Your task to perform on an android device: Is it going to rain tomorrow? Image 0: 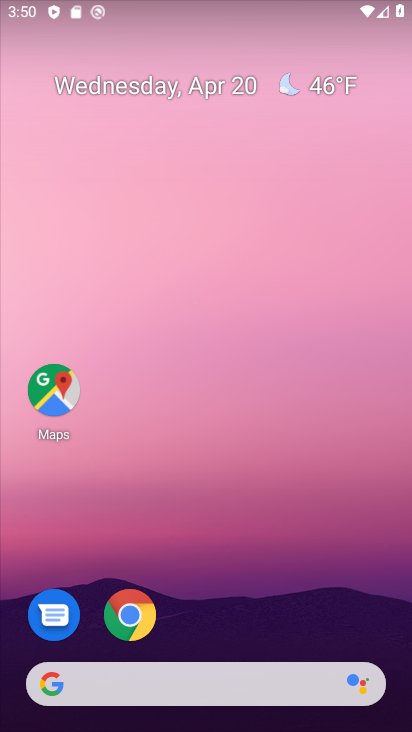
Step 0: click (167, 687)
Your task to perform on an android device: Is it going to rain tomorrow? Image 1: 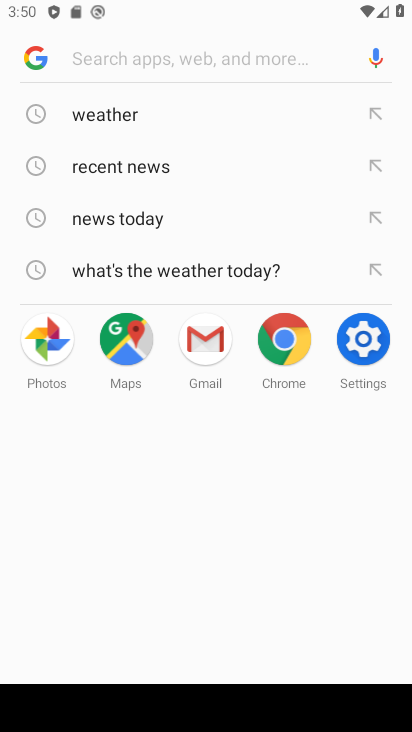
Step 1: click (132, 118)
Your task to perform on an android device: Is it going to rain tomorrow? Image 2: 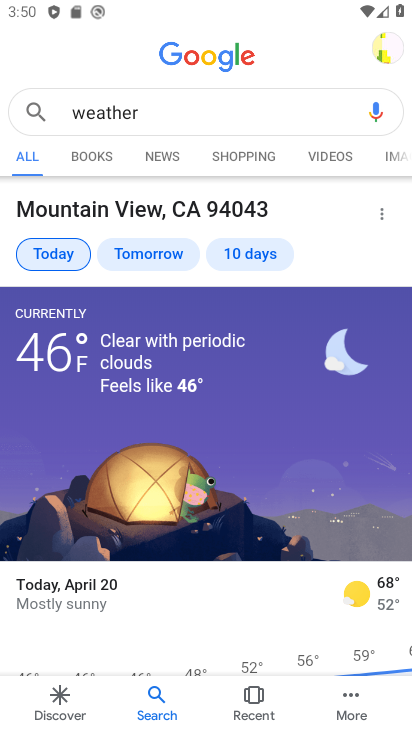
Step 2: drag from (165, 597) to (182, 512)
Your task to perform on an android device: Is it going to rain tomorrow? Image 3: 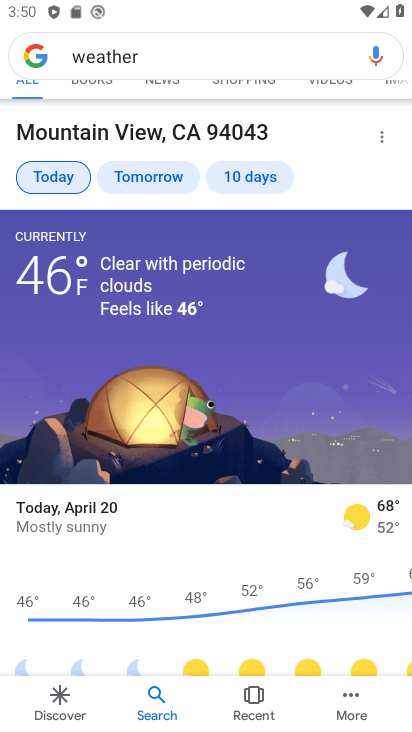
Step 3: click (139, 172)
Your task to perform on an android device: Is it going to rain tomorrow? Image 4: 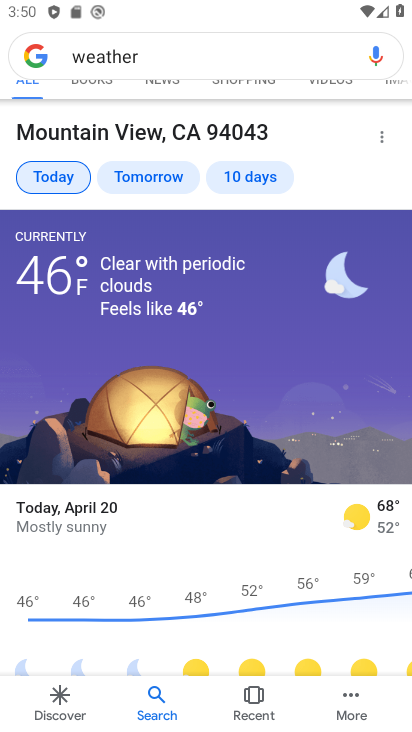
Step 4: click (143, 174)
Your task to perform on an android device: Is it going to rain tomorrow? Image 5: 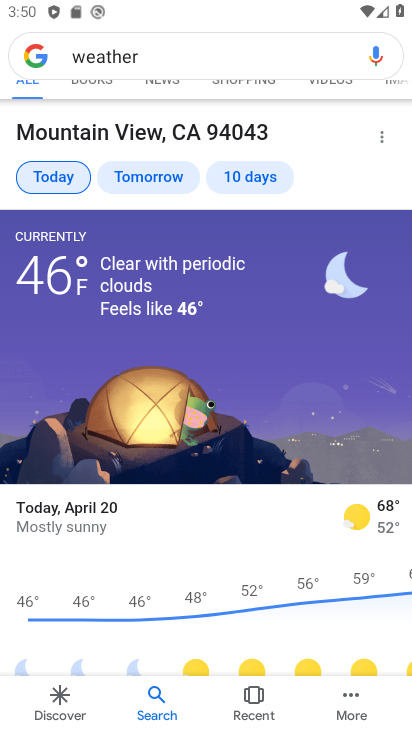
Step 5: click (154, 181)
Your task to perform on an android device: Is it going to rain tomorrow? Image 6: 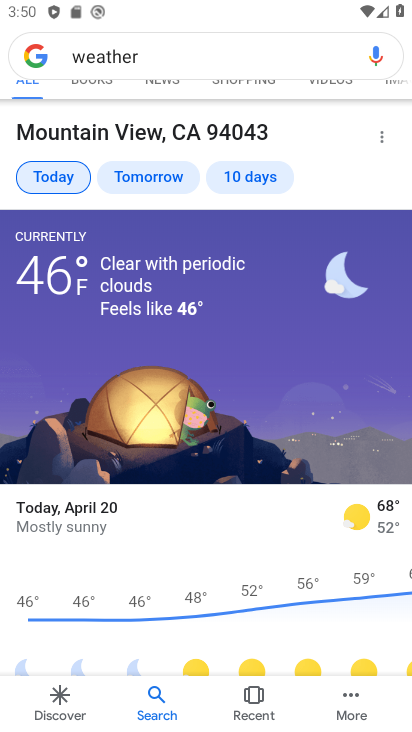
Step 6: click (150, 180)
Your task to perform on an android device: Is it going to rain tomorrow? Image 7: 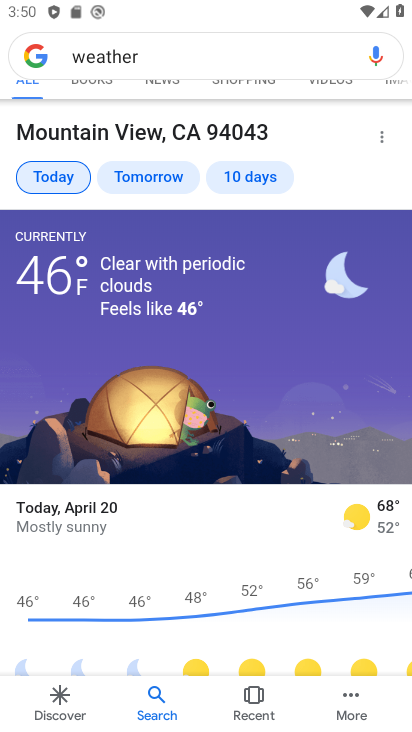
Step 7: click (131, 179)
Your task to perform on an android device: Is it going to rain tomorrow? Image 8: 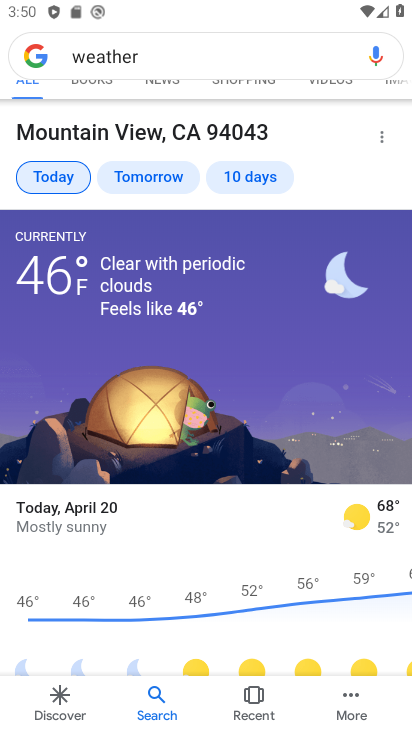
Step 8: task complete